Your task to perform on an android device: See recent photos Image 0: 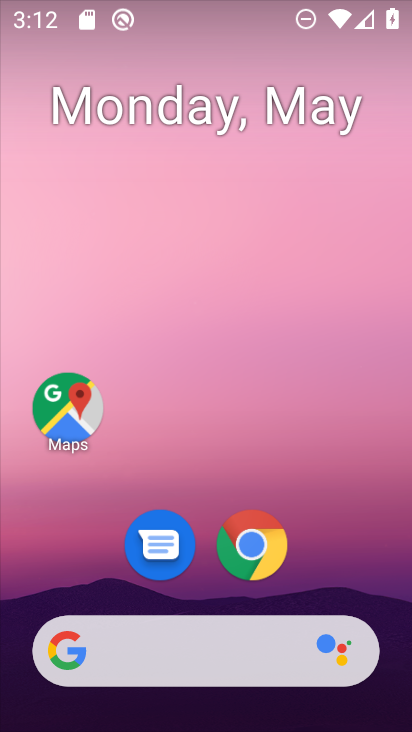
Step 0: drag from (309, 563) to (303, 153)
Your task to perform on an android device: See recent photos Image 1: 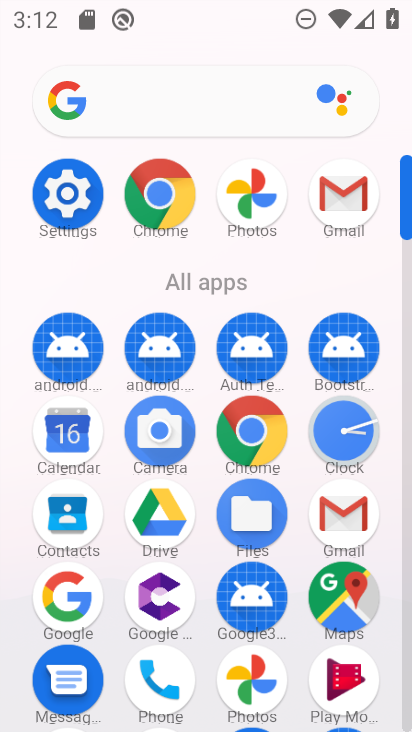
Step 1: click (251, 217)
Your task to perform on an android device: See recent photos Image 2: 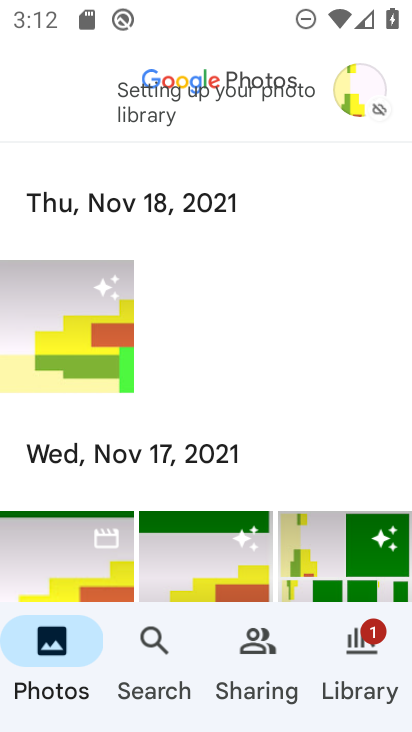
Step 2: task complete